Your task to perform on an android device: Open Wikipedia Image 0: 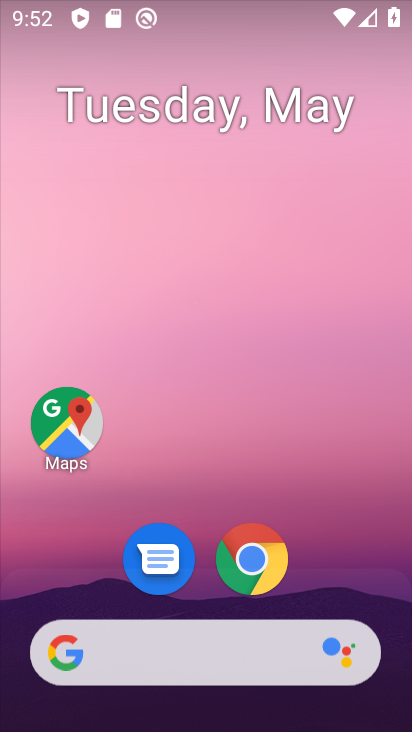
Step 0: drag from (237, 619) to (167, 173)
Your task to perform on an android device: Open Wikipedia Image 1: 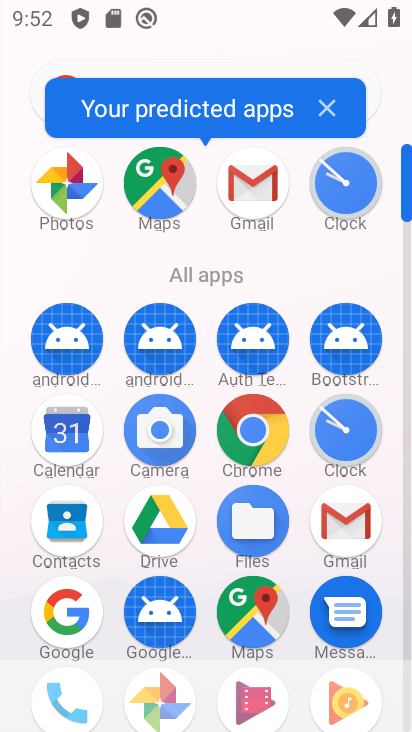
Step 1: click (245, 418)
Your task to perform on an android device: Open Wikipedia Image 2: 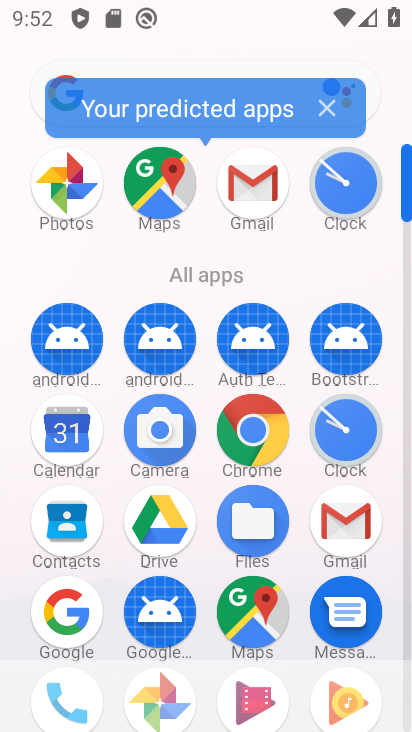
Step 2: click (245, 418)
Your task to perform on an android device: Open Wikipedia Image 3: 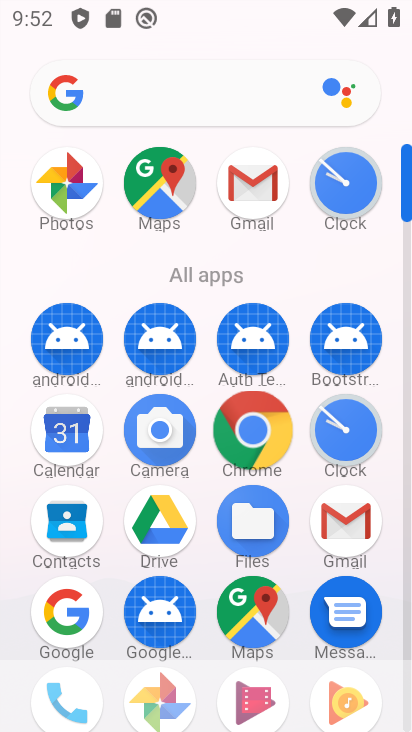
Step 3: click (245, 418)
Your task to perform on an android device: Open Wikipedia Image 4: 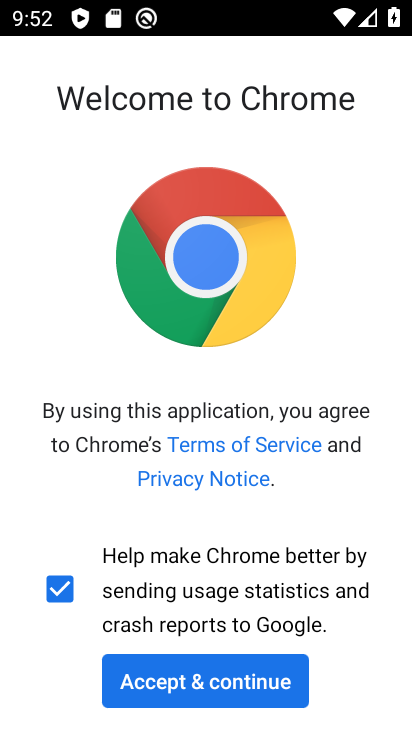
Step 4: click (225, 682)
Your task to perform on an android device: Open Wikipedia Image 5: 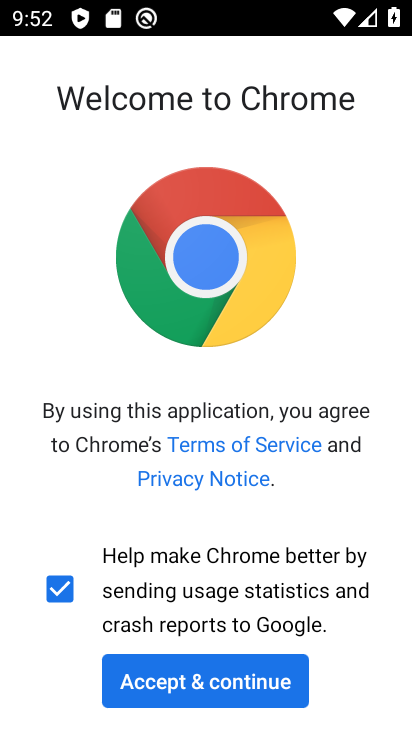
Step 5: click (225, 682)
Your task to perform on an android device: Open Wikipedia Image 6: 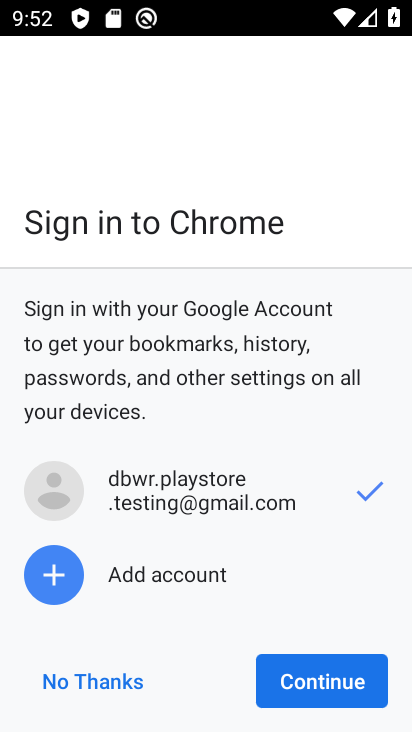
Step 6: click (231, 672)
Your task to perform on an android device: Open Wikipedia Image 7: 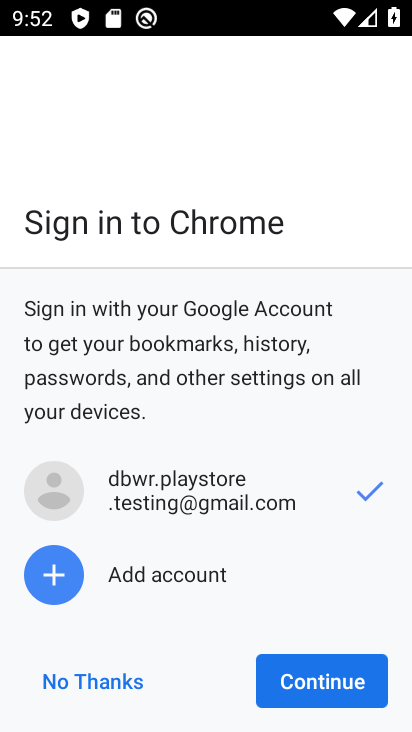
Step 7: click (235, 672)
Your task to perform on an android device: Open Wikipedia Image 8: 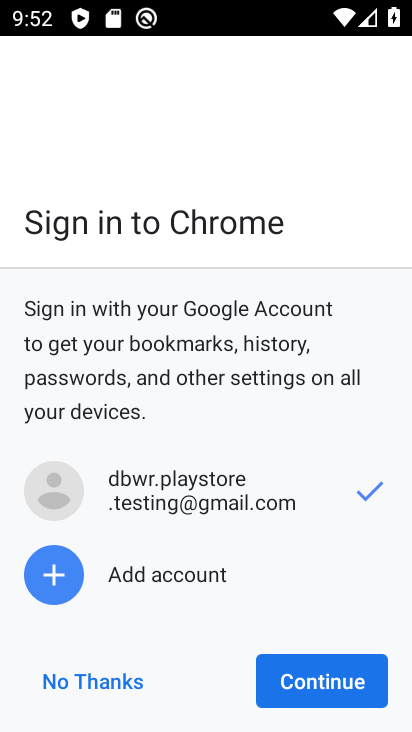
Step 8: click (346, 699)
Your task to perform on an android device: Open Wikipedia Image 9: 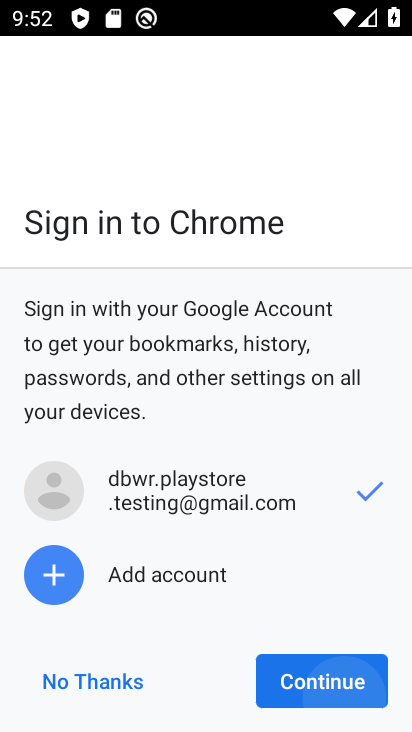
Step 9: click (351, 684)
Your task to perform on an android device: Open Wikipedia Image 10: 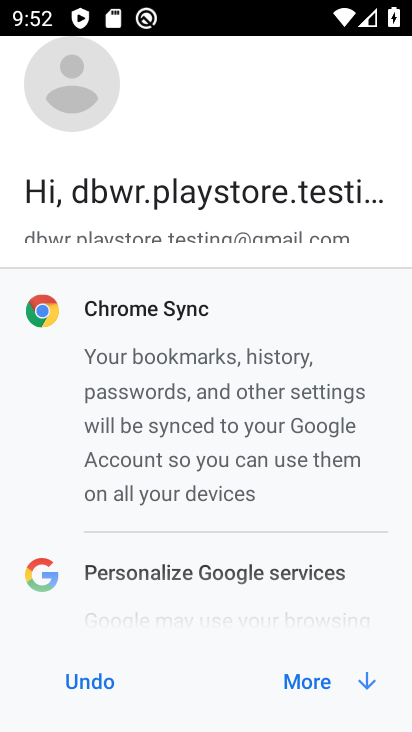
Step 10: click (344, 684)
Your task to perform on an android device: Open Wikipedia Image 11: 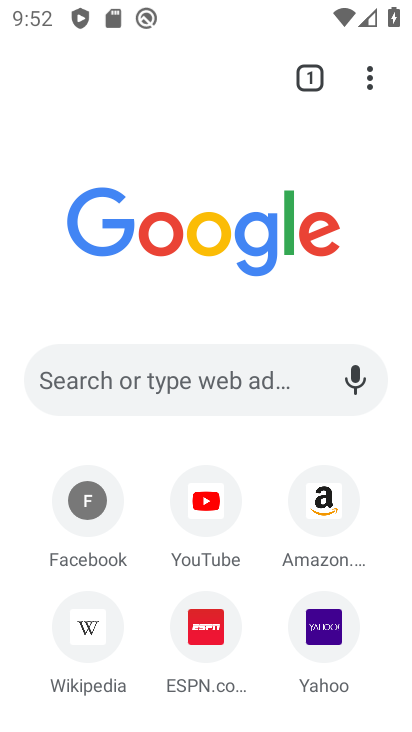
Step 11: click (86, 638)
Your task to perform on an android device: Open Wikipedia Image 12: 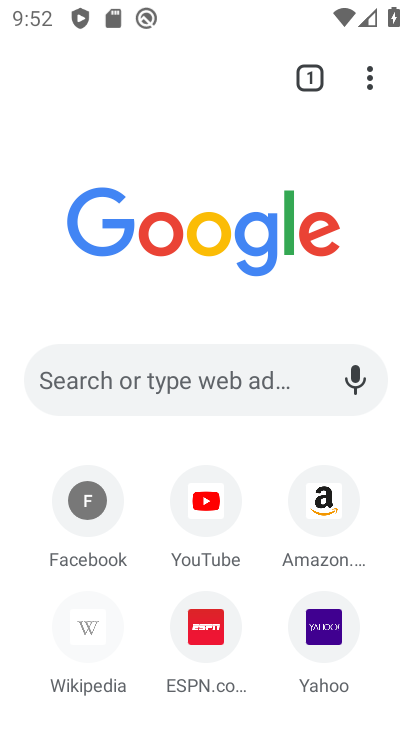
Step 12: click (86, 637)
Your task to perform on an android device: Open Wikipedia Image 13: 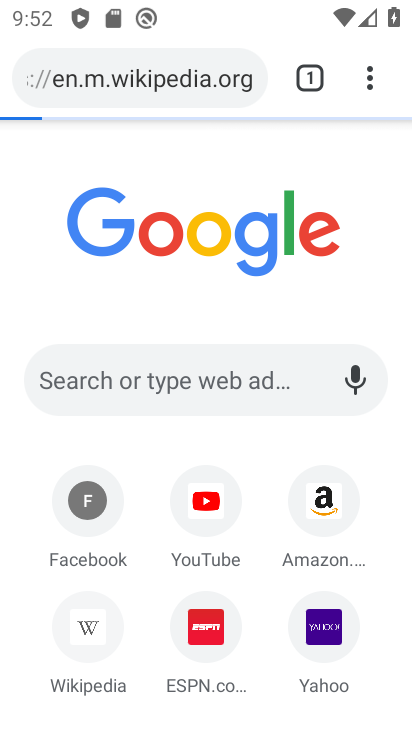
Step 13: click (88, 634)
Your task to perform on an android device: Open Wikipedia Image 14: 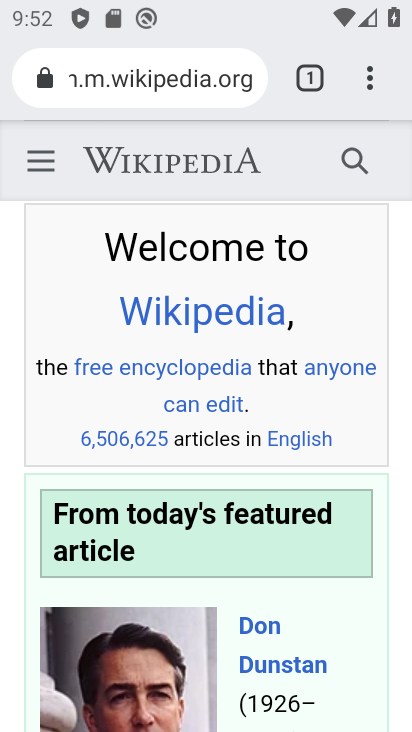
Step 14: task complete